Your task to perform on an android device: delete browsing data in the chrome app Image 0: 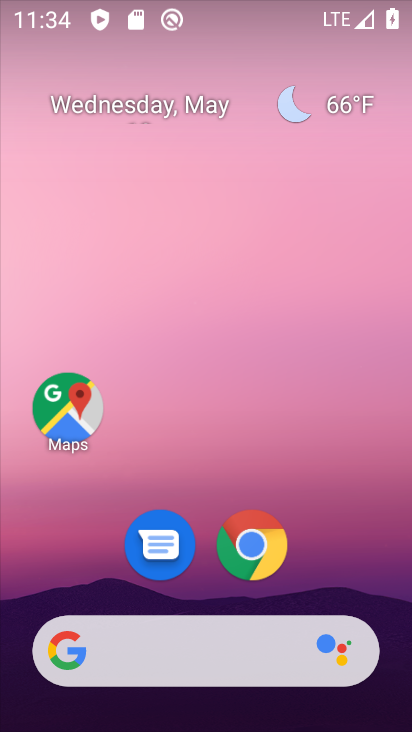
Step 0: click (269, 531)
Your task to perform on an android device: delete browsing data in the chrome app Image 1: 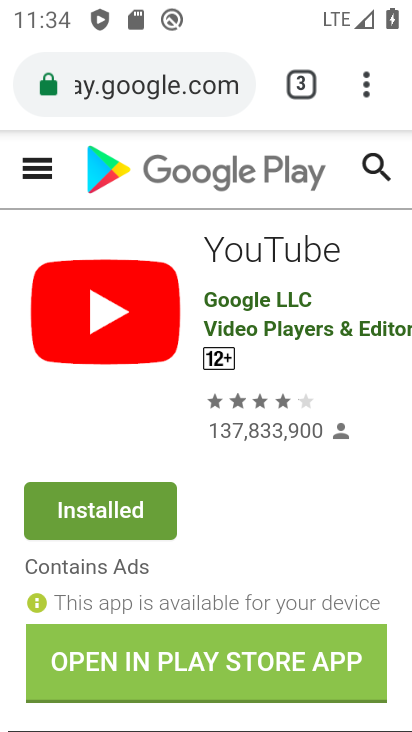
Step 1: click (398, 97)
Your task to perform on an android device: delete browsing data in the chrome app Image 2: 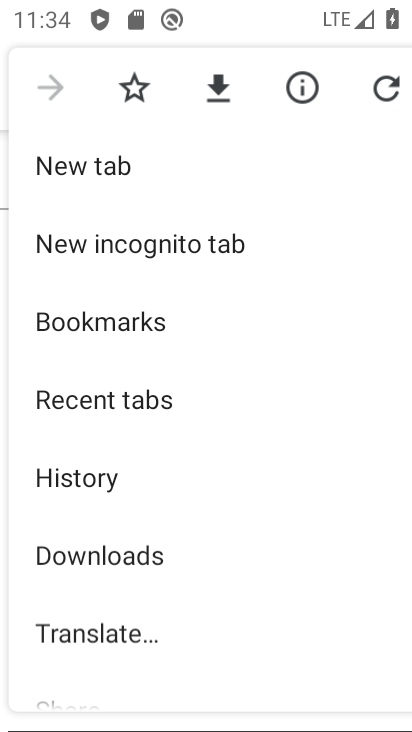
Step 2: click (361, 79)
Your task to perform on an android device: delete browsing data in the chrome app Image 3: 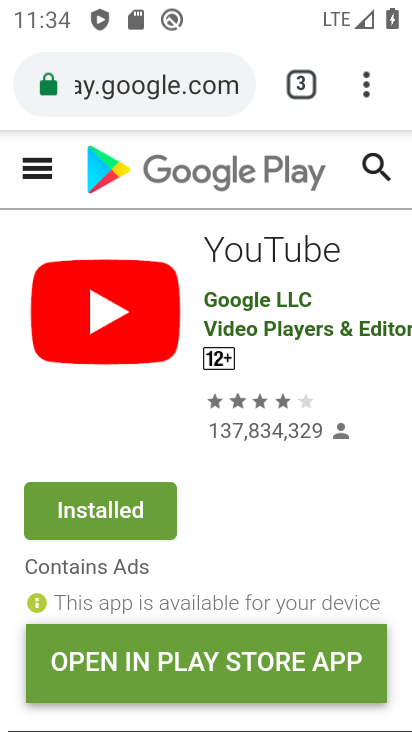
Step 3: click (361, 77)
Your task to perform on an android device: delete browsing data in the chrome app Image 4: 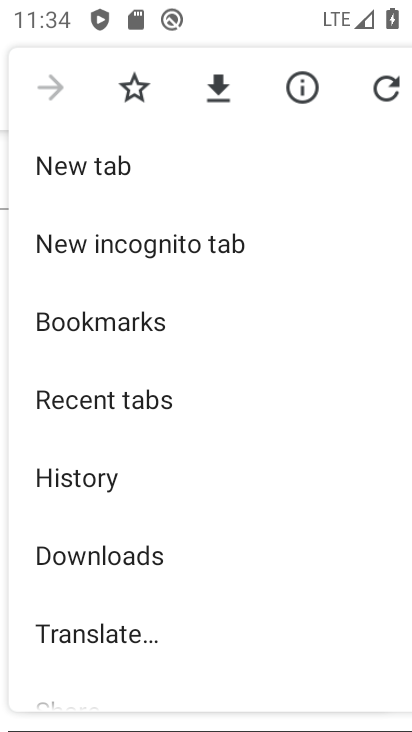
Step 4: click (100, 480)
Your task to perform on an android device: delete browsing data in the chrome app Image 5: 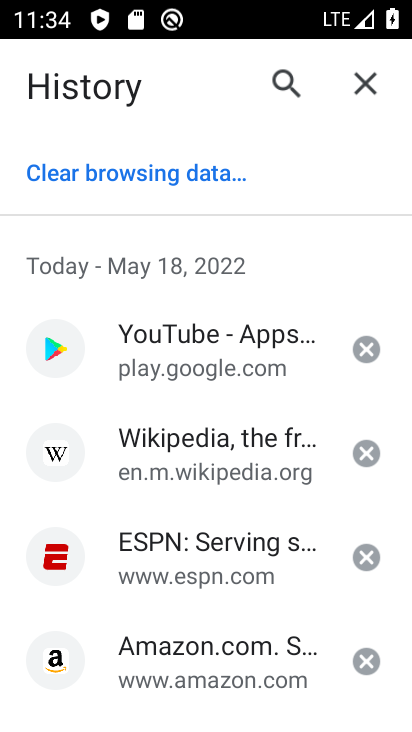
Step 5: click (176, 178)
Your task to perform on an android device: delete browsing data in the chrome app Image 6: 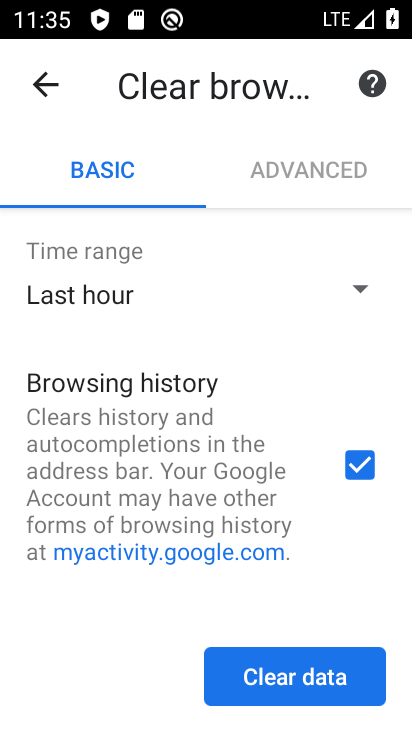
Step 6: click (306, 674)
Your task to perform on an android device: delete browsing data in the chrome app Image 7: 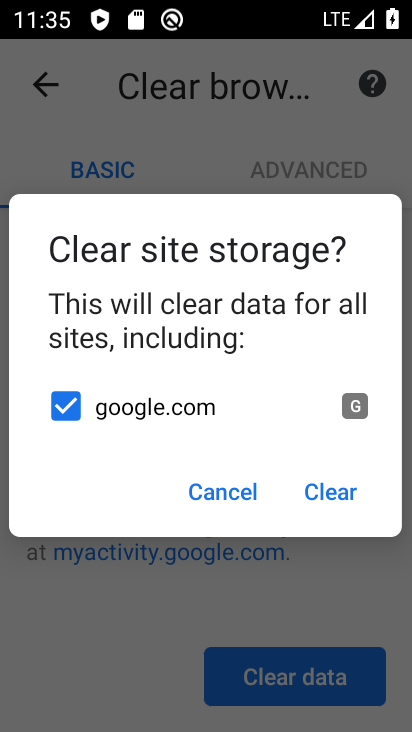
Step 7: click (337, 482)
Your task to perform on an android device: delete browsing data in the chrome app Image 8: 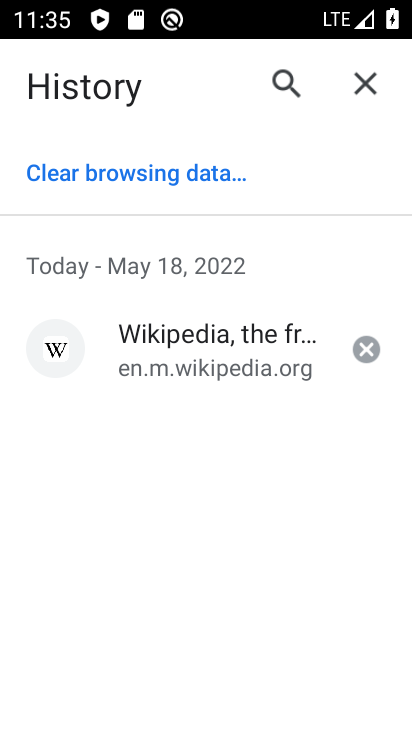
Step 8: click (81, 174)
Your task to perform on an android device: delete browsing data in the chrome app Image 9: 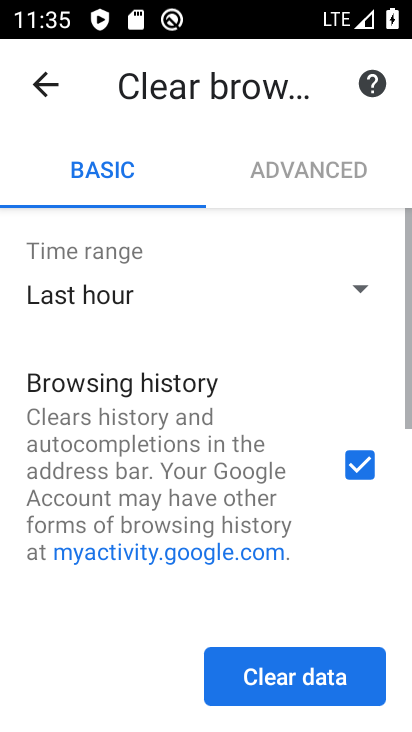
Step 9: click (284, 674)
Your task to perform on an android device: delete browsing data in the chrome app Image 10: 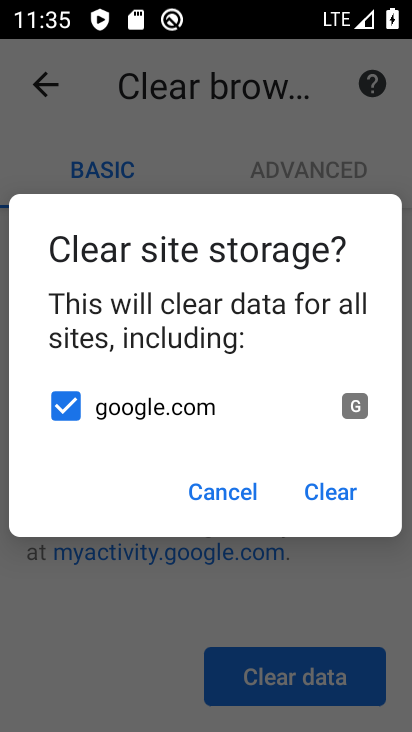
Step 10: click (347, 486)
Your task to perform on an android device: delete browsing data in the chrome app Image 11: 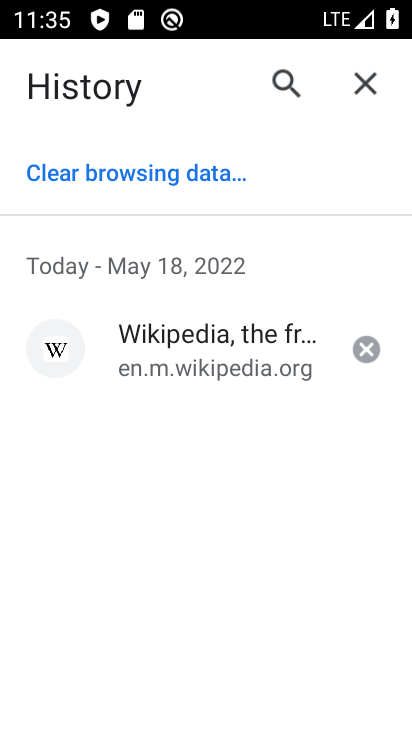
Step 11: task complete